Your task to perform on an android device: see tabs open on other devices in the chrome app Image 0: 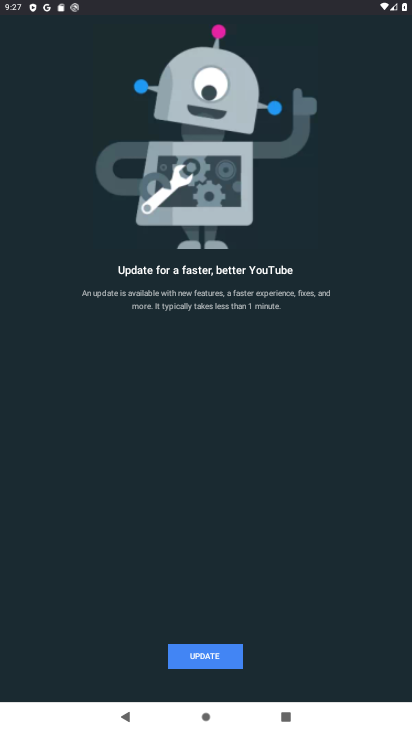
Step 0: press back button
Your task to perform on an android device: see tabs open on other devices in the chrome app Image 1: 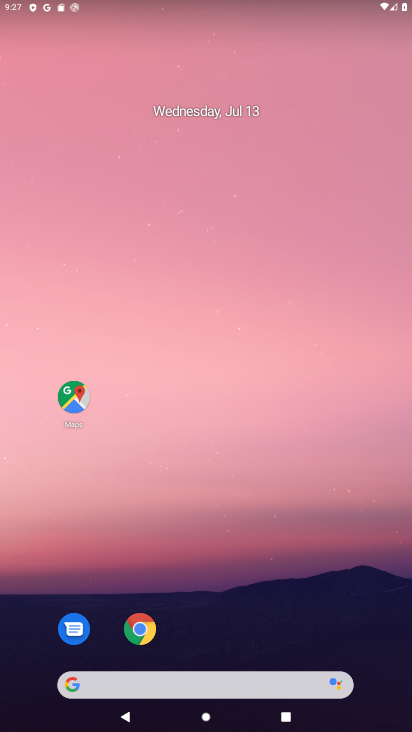
Step 1: drag from (336, 599) to (362, 147)
Your task to perform on an android device: see tabs open on other devices in the chrome app Image 2: 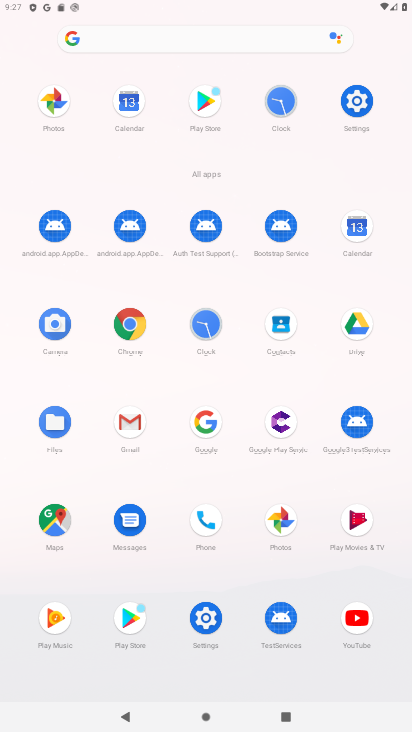
Step 2: click (137, 328)
Your task to perform on an android device: see tabs open on other devices in the chrome app Image 3: 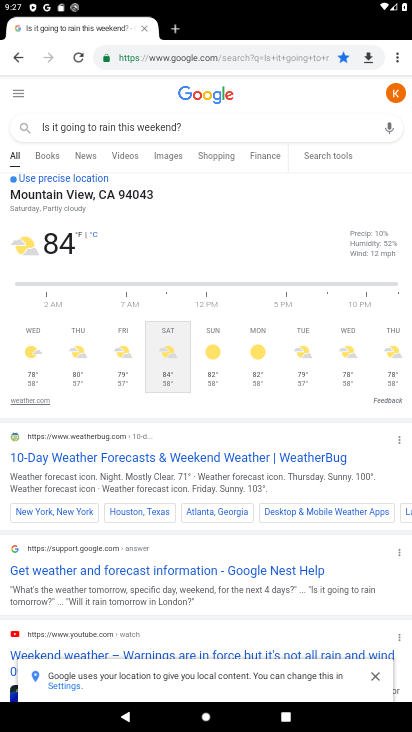
Step 3: click (401, 50)
Your task to perform on an android device: see tabs open on other devices in the chrome app Image 4: 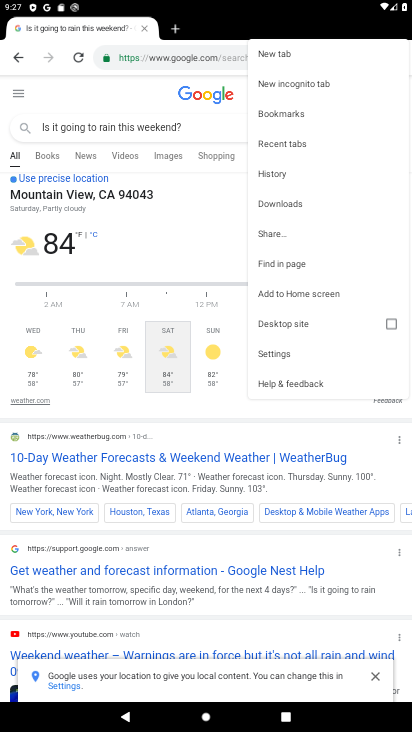
Step 4: click (292, 147)
Your task to perform on an android device: see tabs open on other devices in the chrome app Image 5: 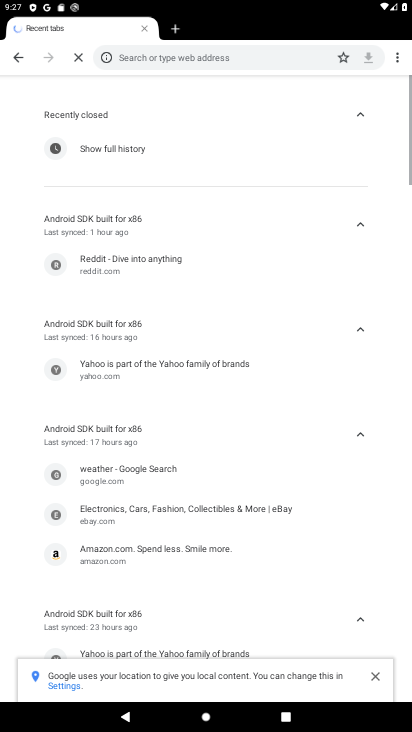
Step 5: task complete